Your task to perform on an android device: Open the map Image 0: 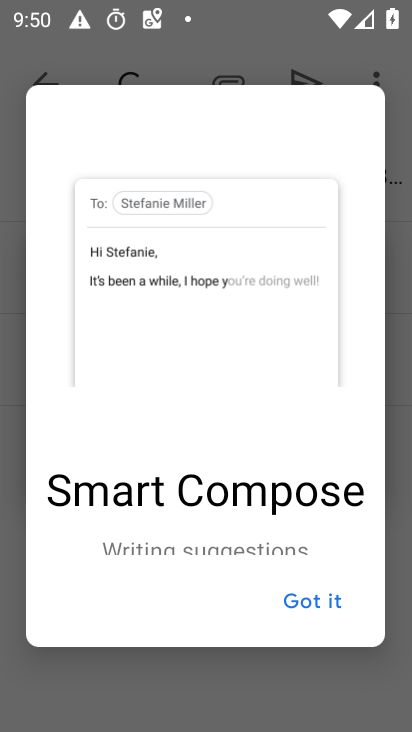
Step 0: press home button
Your task to perform on an android device: Open the map Image 1: 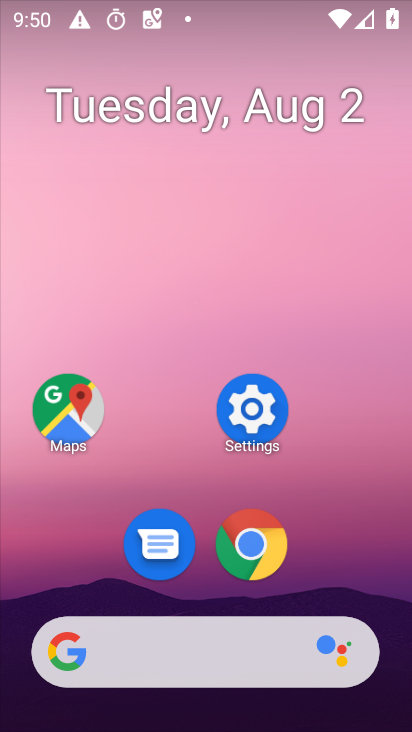
Step 1: click (70, 415)
Your task to perform on an android device: Open the map Image 2: 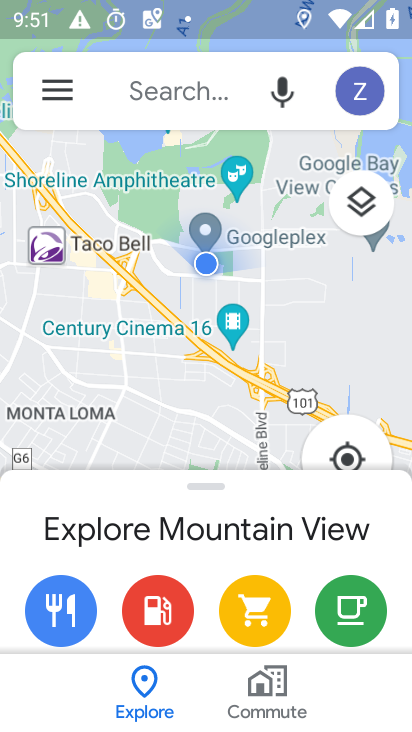
Step 2: task complete